Your task to perform on an android device: star an email in the gmail app Image 0: 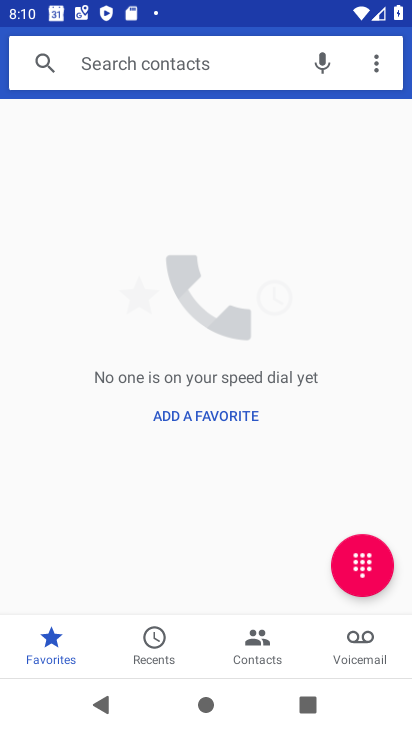
Step 0: click (53, 327)
Your task to perform on an android device: star an email in the gmail app Image 1: 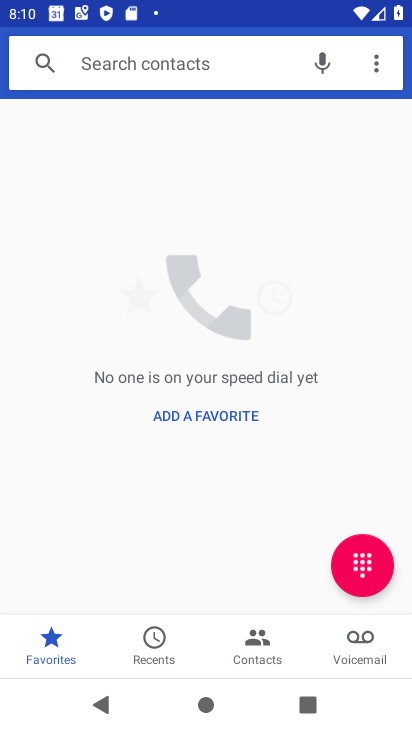
Step 1: press home button
Your task to perform on an android device: star an email in the gmail app Image 2: 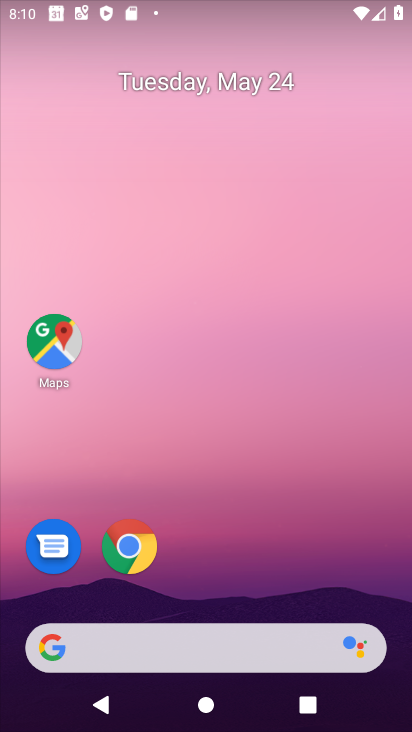
Step 2: drag from (209, 535) to (222, 24)
Your task to perform on an android device: star an email in the gmail app Image 3: 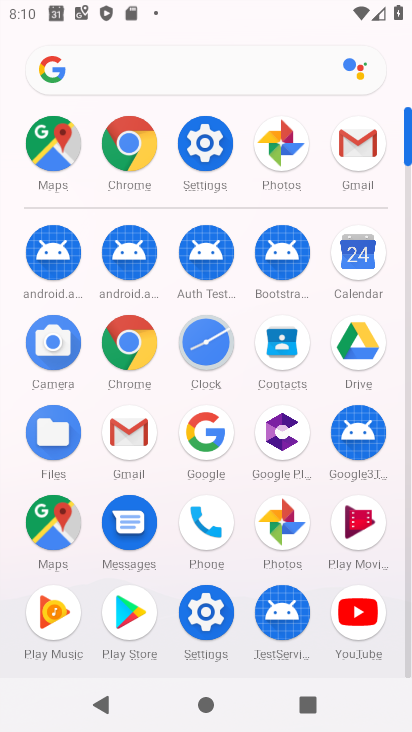
Step 3: click (356, 144)
Your task to perform on an android device: star an email in the gmail app Image 4: 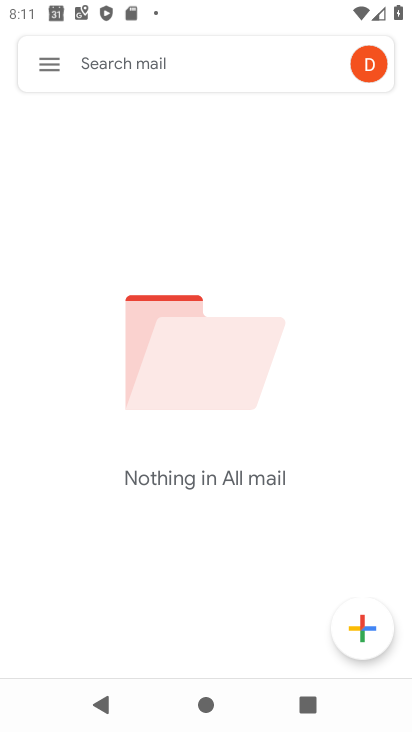
Step 4: task complete